Your task to perform on an android device: turn on wifi Image 0: 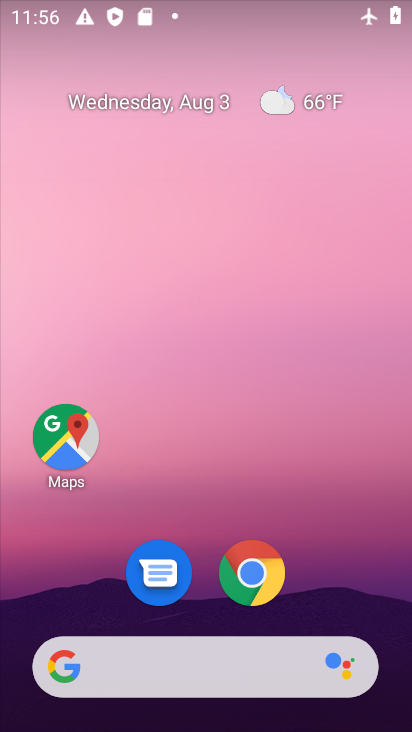
Step 0: drag from (351, 519) to (345, 122)
Your task to perform on an android device: turn on wifi Image 1: 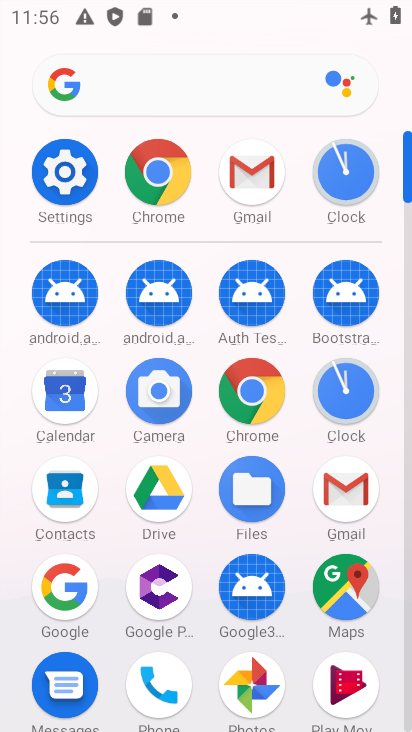
Step 1: click (48, 182)
Your task to perform on an android device: turn on wifi Image 2: 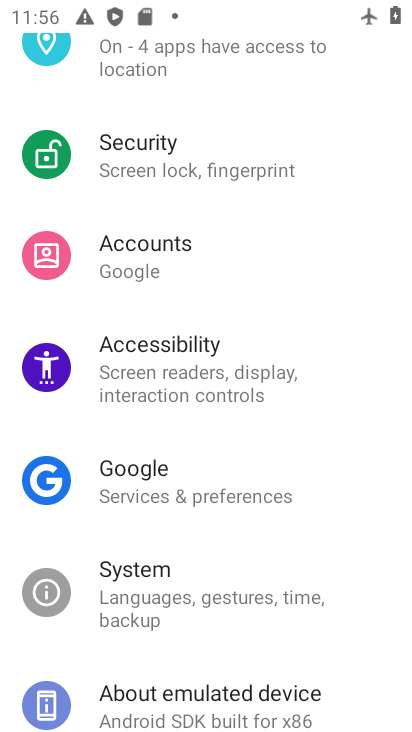
Step 2: drag from (276, 105) to (281, 559)
Your task to perform on an android device: turn on wifi Image 3: 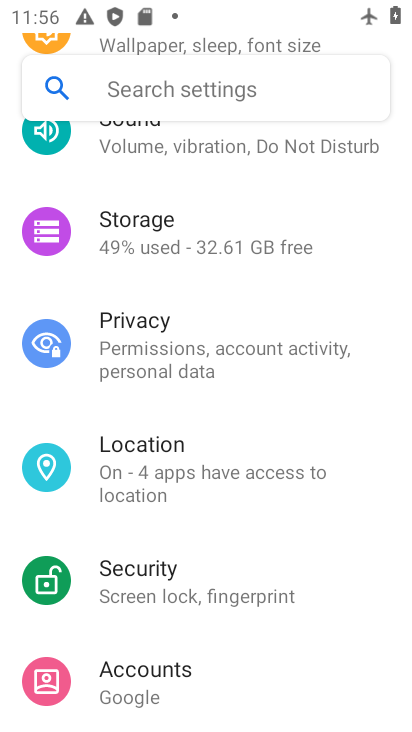
Step 3: drag from (248, 200) to (244, 556)
Your task to perform on an android device: turn on wifi Image 4: 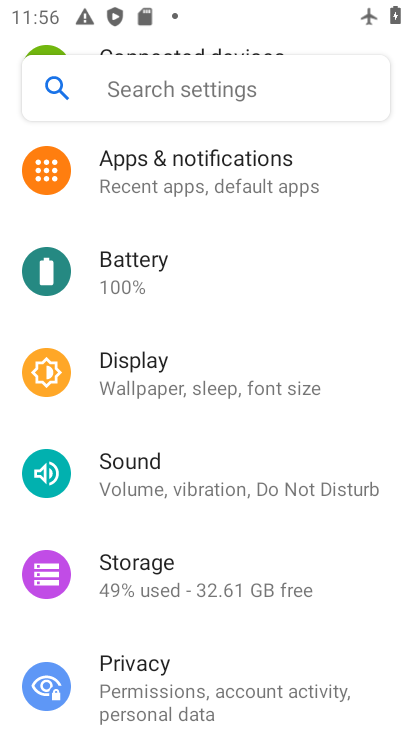
Step 4: drag from (235, 224) to (278, 576)
Your task to perform on an android device: turn on wifi Image 5: 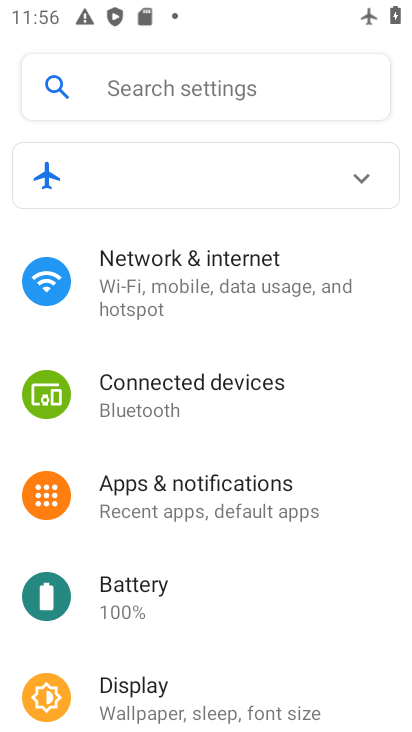
Step 5: click (249, 287)
Your task to perform on an android device: turn on wifi Image 6: 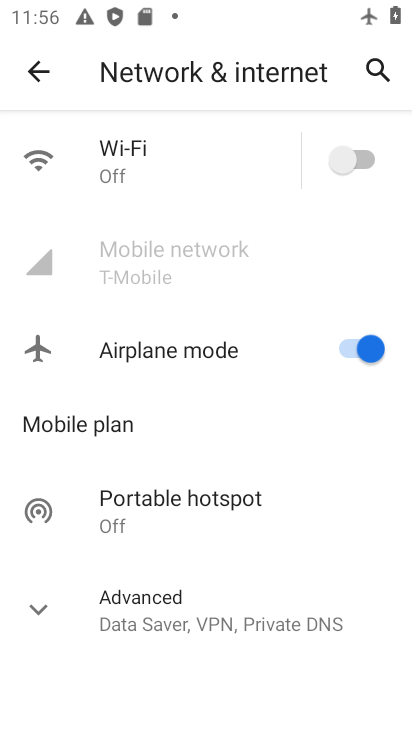
Step 6: click (342, 155)
Your task to perform on an android device: turn on wifi Image 7: 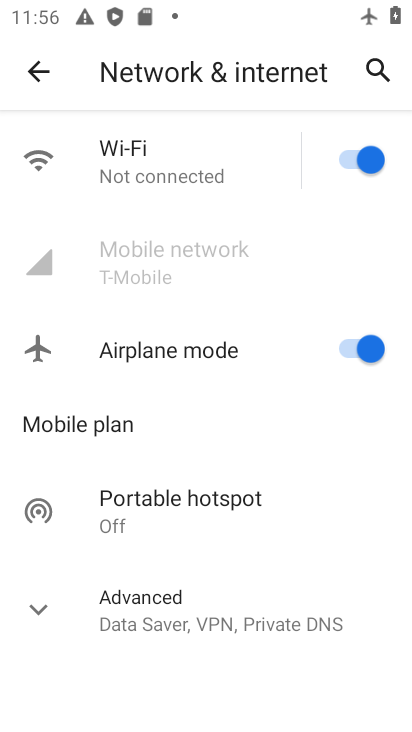
Step 7: task complete